Your task to perform on an android device: turn off picture-in-picture Image 0: 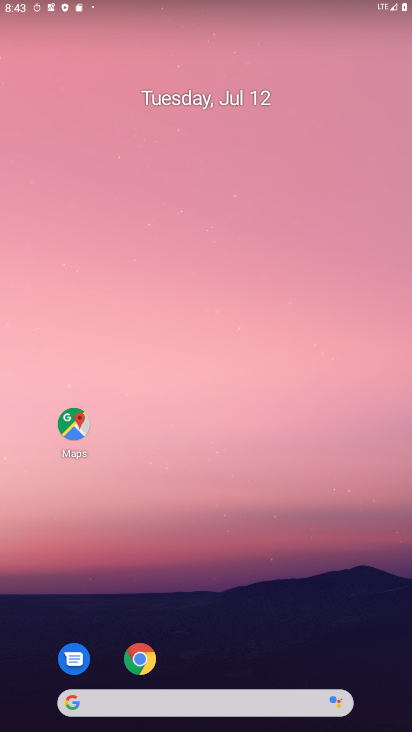
Step 0: drag from (378, 633) to (235, 78)
Your task to perform on an android device: turn off picture-in-picture Image 1: 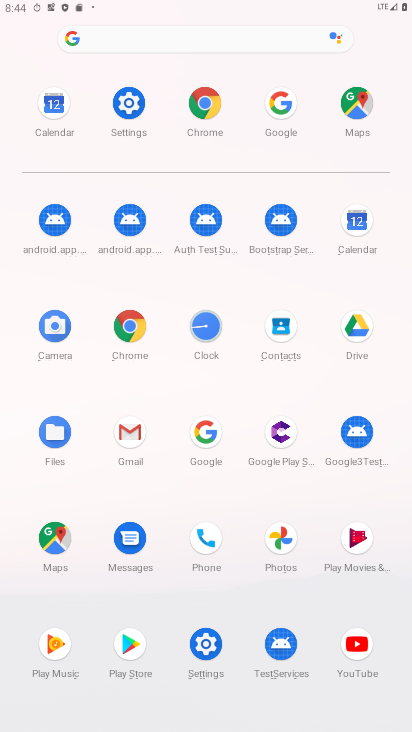
Step 1: click (124, 309)
Your task to perform on an android device: turn off picture-in-picture Image 2: 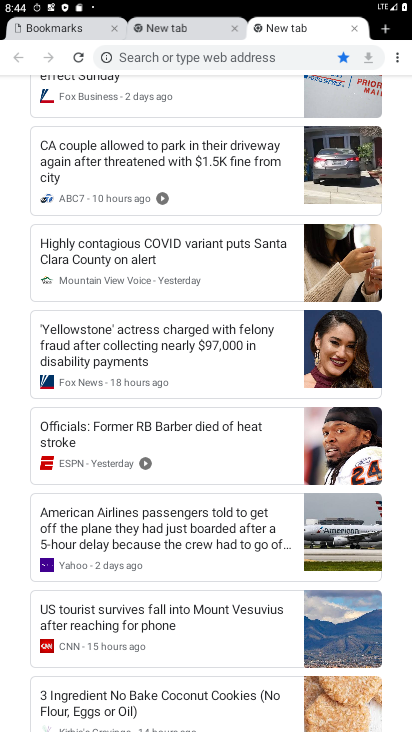
Step 2: task complete